Your task to perform on an android device: Go to network settings Image 0: 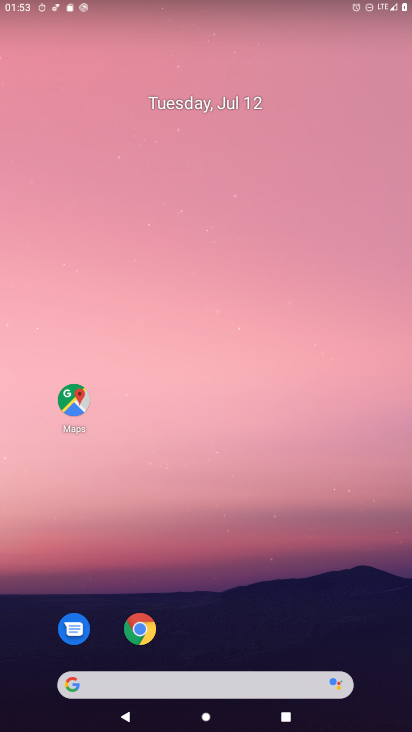
Step 0: drag from (11, 706) to (407, 17)
Your task to perform on an android device: Go to network settings Image 1: 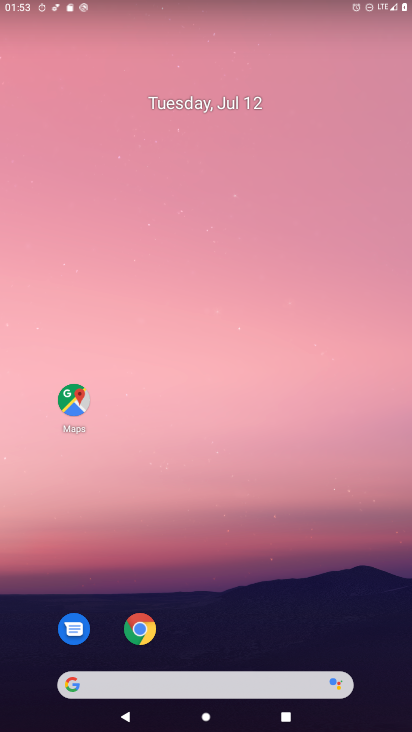
Step 1: drag from (34, 692) to (279, 2)
Your task to perform on an android device: Go to network settings Image 2: 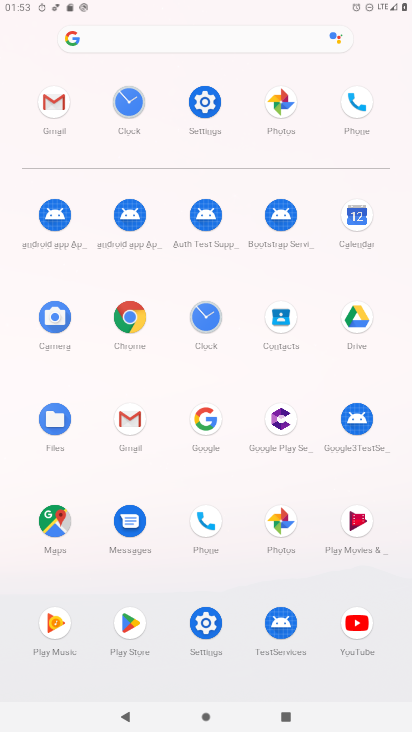
Step 2: click (211, 625)
Your task to perform on an android device: Go to network settings Image 3: 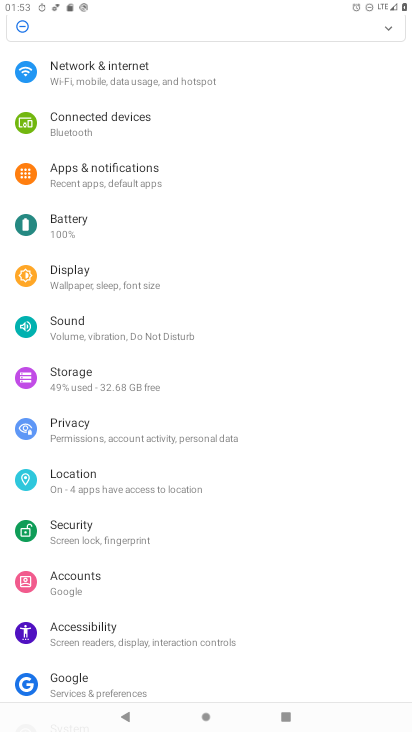
Step 3: click (112, 68)
Your task to perform on an android device: Go to network settings Image 4: 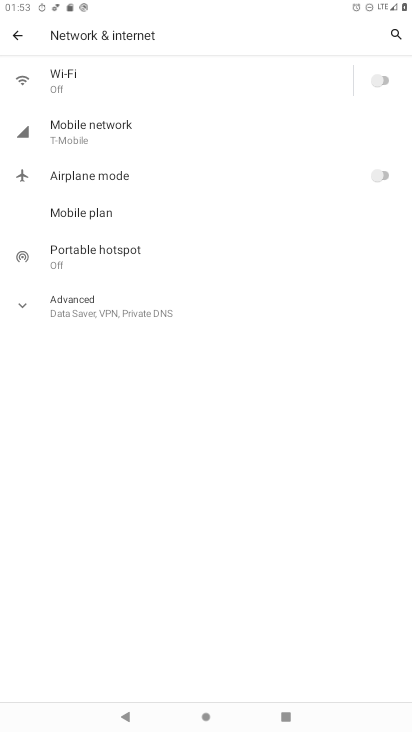
Step 4: task complete